Your task to perform on an android device: turn on showing notifications on the lock screen Image 0: 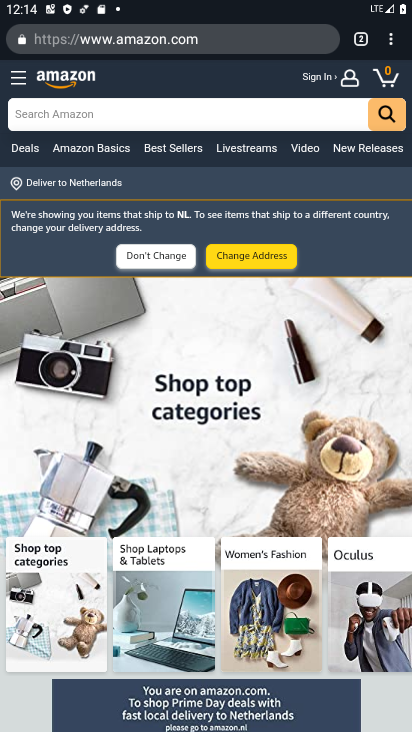
Step 0: press home button
Your task to perform on an android device: turn on showing notifications on the lock screen Image 1: 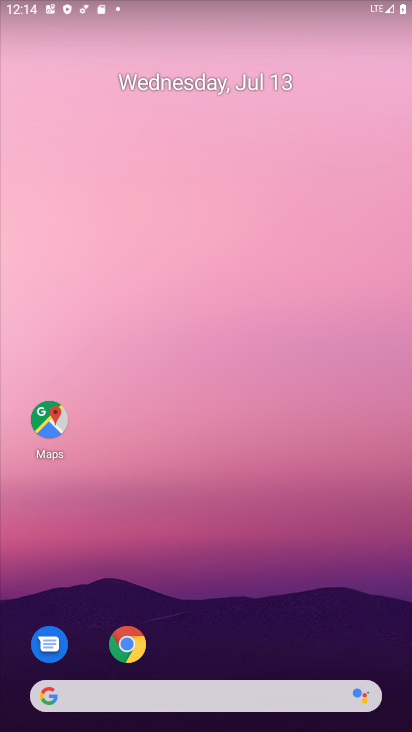
Step 1: drag from (228, 649) to (252, 120)
Your task to perform on an android device: turn on showing notifications on the lock screen Image 2: 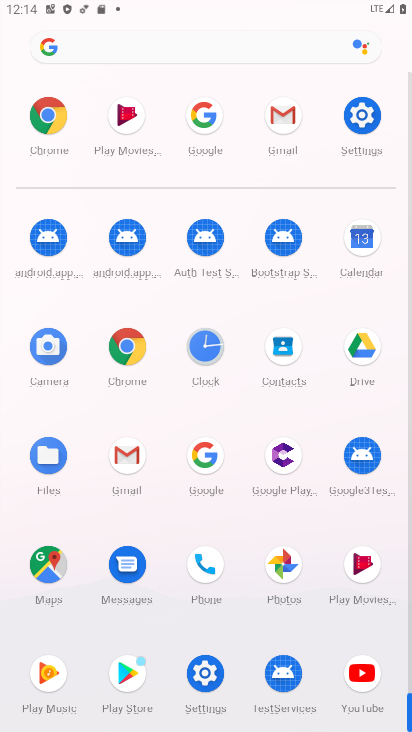
Step 2: click (358, 114)
Your task to perform on an android device: turn on showing notifications on the lock screen Image 3: 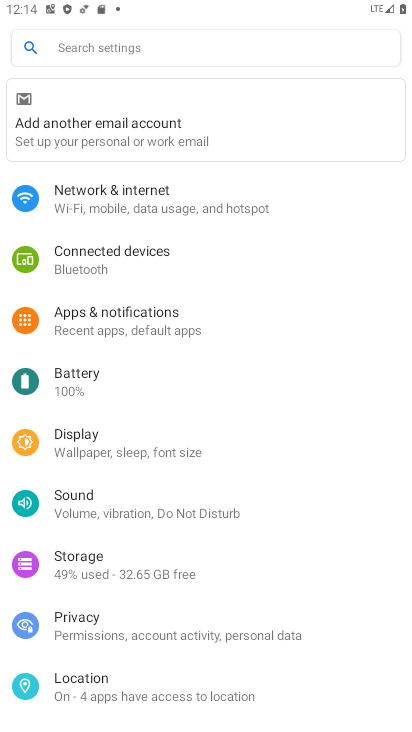
Step 3: drag from (197, 598) to (201, 489)
Your task to perform on an android device: turn on showing notifications on the lock screen Image 4: 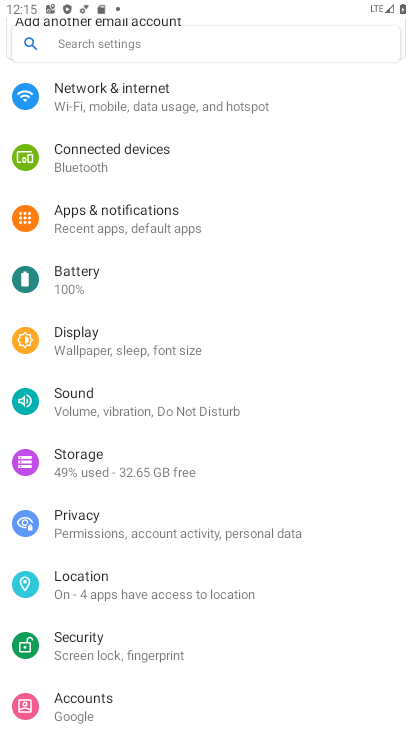
Step 4: click (153, 221)
Your task to perform on an android device: turn on showing notifications on the lock screen Image 5: 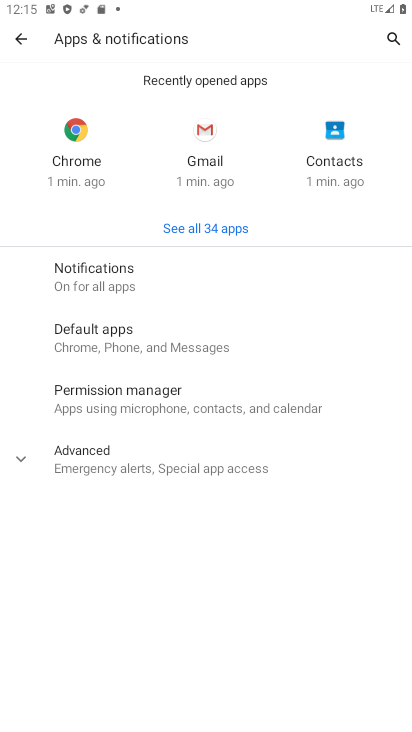
Step 5: click (111, 277)
Your task to perform on an android device: turn on showing notifications on the lock screen Image 6: 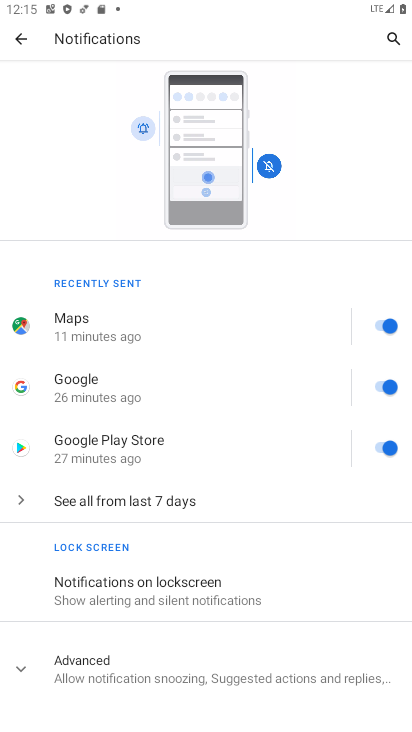
Step 6: click (142, 600)
Your task to perform on an android device: turn on showing notifications on the lock screen Image 7: 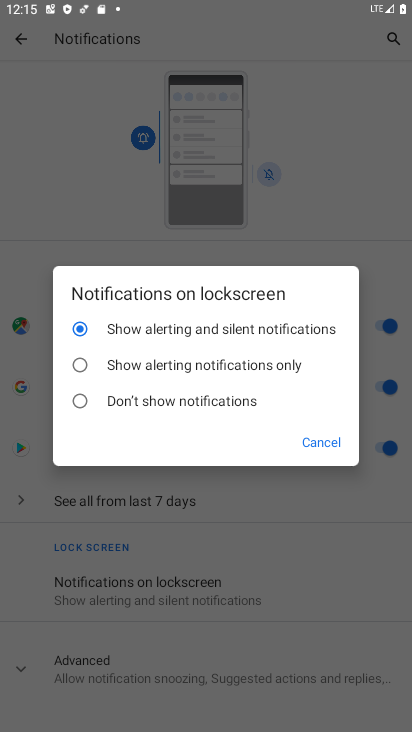
Step 7: task complete